Your task to perform on an android device: Search for "bose quietcomfort 35" on bestbuy, select the first entry, add it to the cart, then select checkout. Image 0: 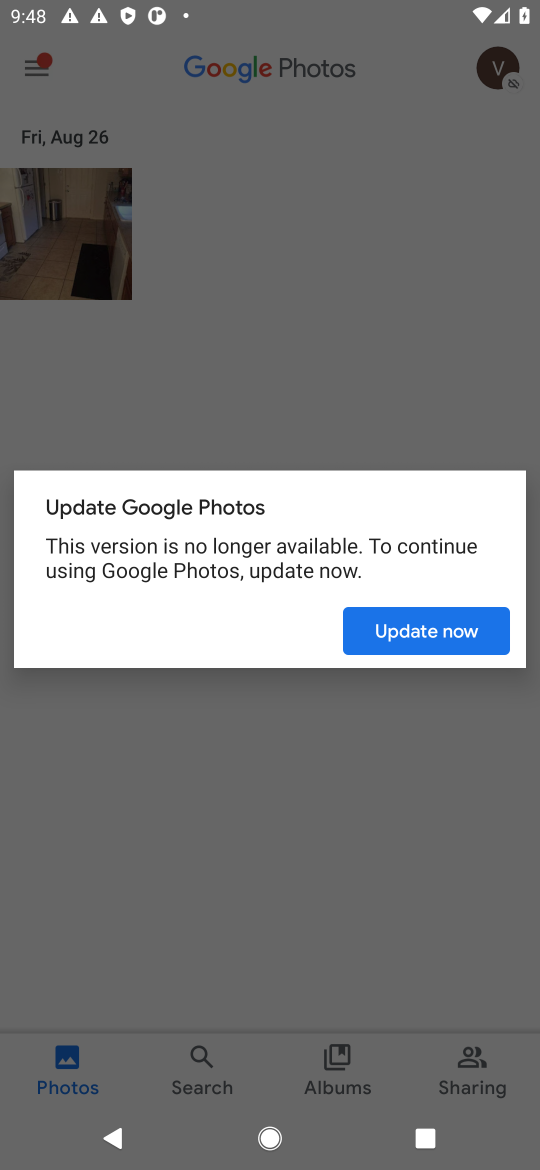
Step 0: press home button
Your task to perform on an android device: Search for "bose quietcomfort 35" on bestbuy, select the first entry, add it to the cart, then select checkout. Image 1: 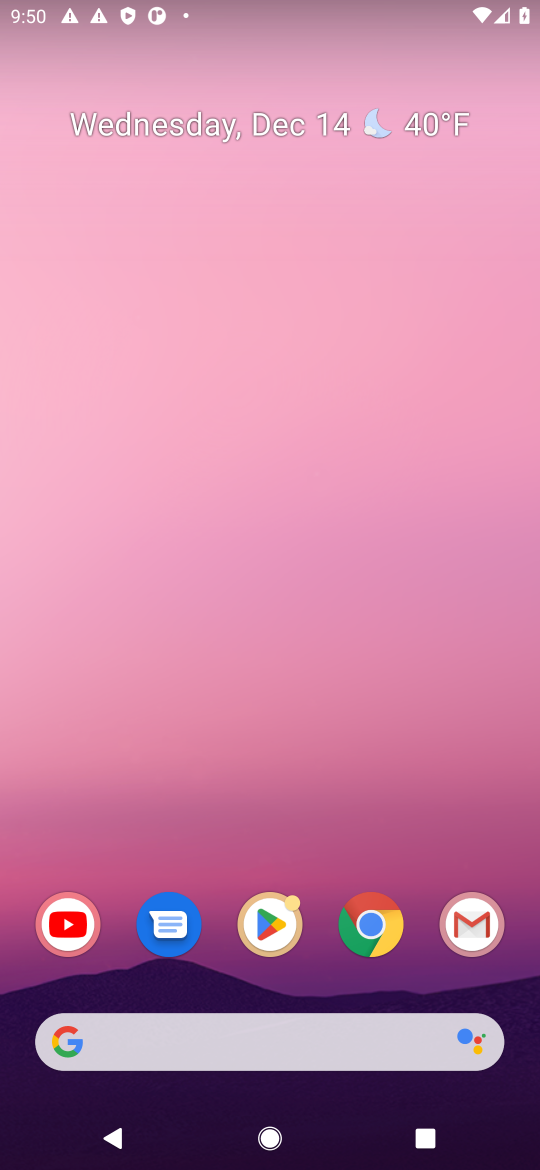
Step 1: click (382, 923)
Your task to perform on an android device: Search for "bose quietcomfort 35" on bestbuy, select the first entry, add it to the cart, then select checkout. Image 2: 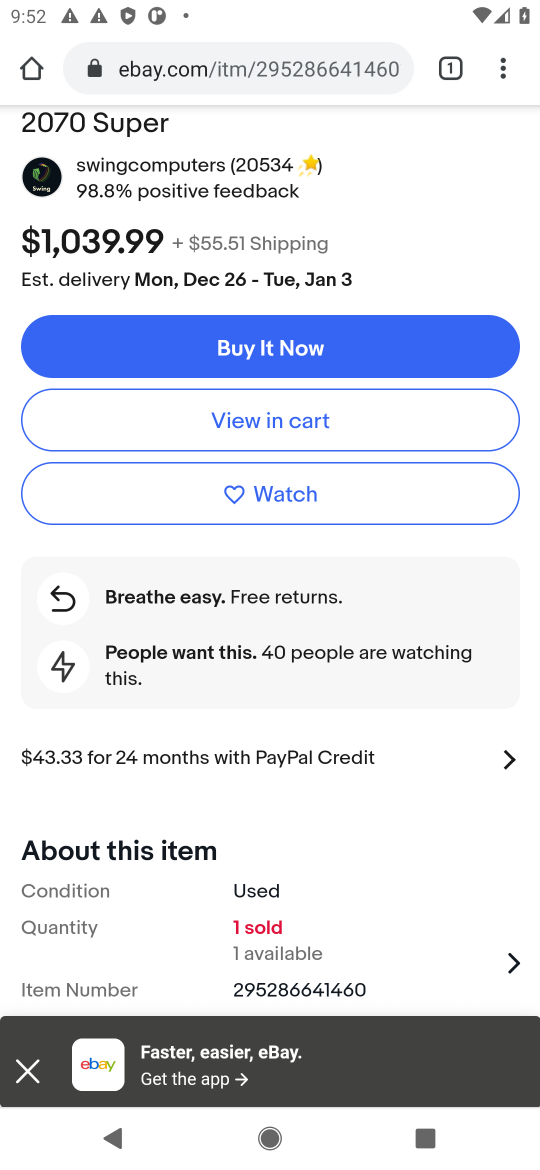
Step 2: click (301, 79)
Your task to perform on an android device: Search for "bose quietcomfort 35" on bestbuy, select the first entry, add it to the cart, then select checkout. Image 3: 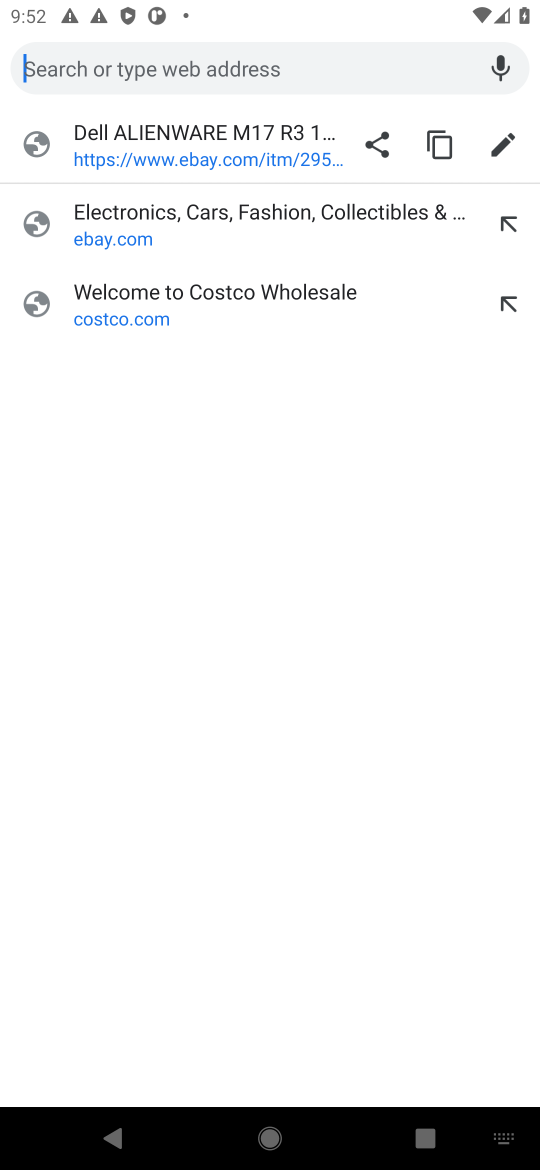
Step 3: type "BESTBUY"
Your task to perform on an android device: Search for "bose quietcomfort 35" on bestbuy, select the first entry, add it to the cart, then select checkout. Image 4: 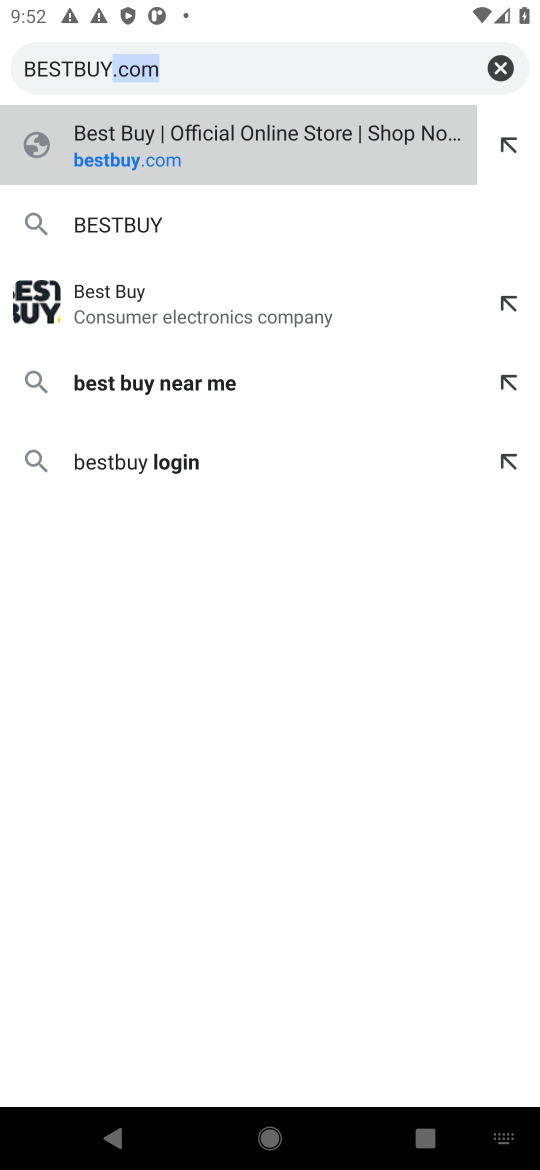
Step 4: click (132, 154)
Your task to perform on an android device: Search for "bose quietcomfort 35" on bestbuy, select the first entry, add it to the cart, then select checkout. Image 5: 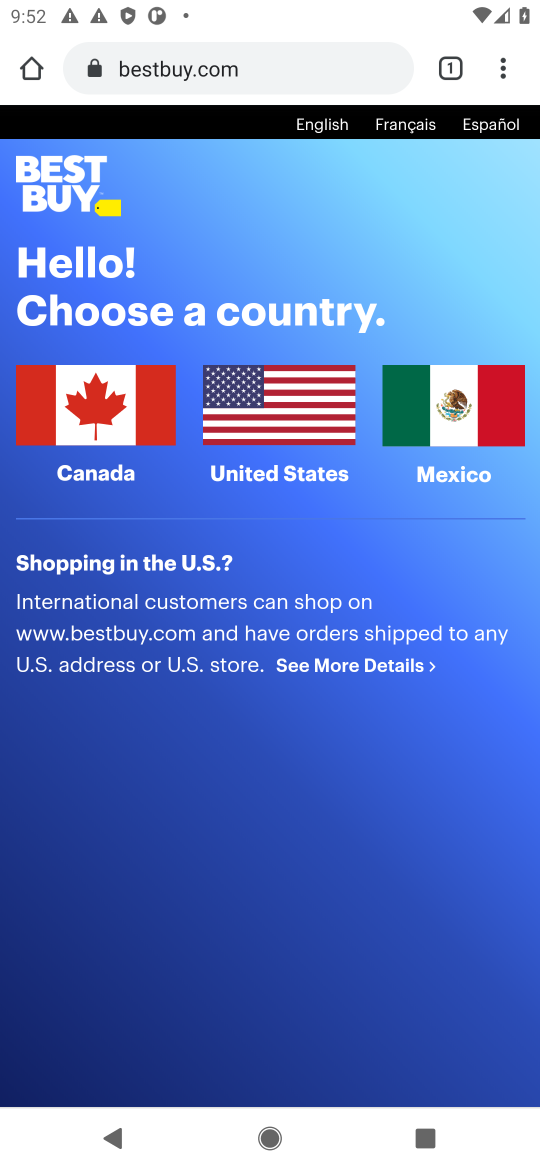
Step 5: click (281, 403)
Your task to perform on an android device: Search for "bose quietcomfort 35" on bestbuy, select the first entry, add it to the cart, then select checkout. Image 6: 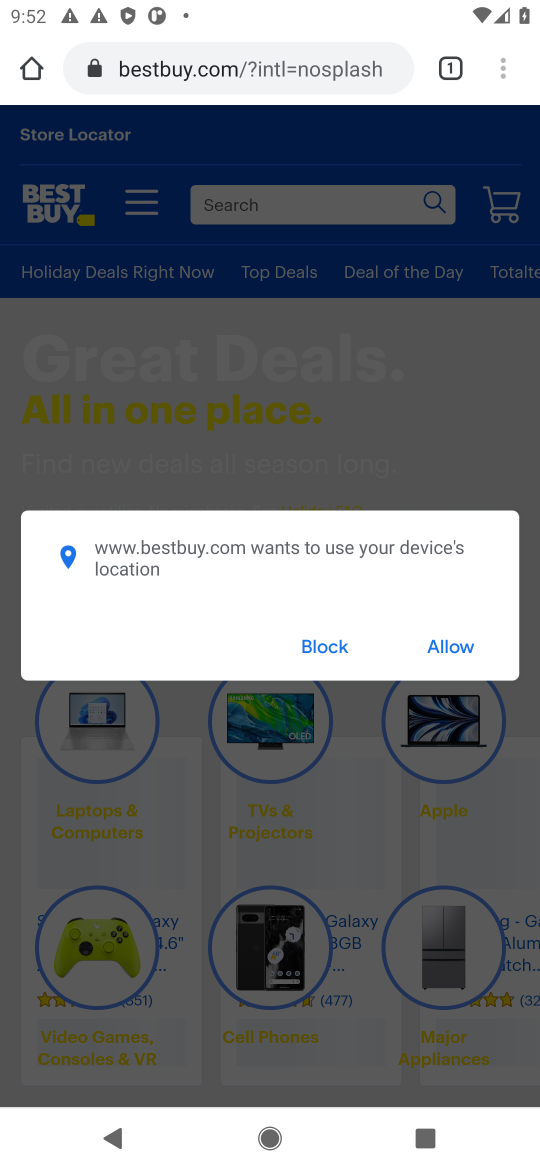
Step 6: click (314, 650)
Your task to perform on an android device: Search for "bose quietcomfort 35" on bestbuy, select the first entry, add it to the cart, then select checkout. Image 7: 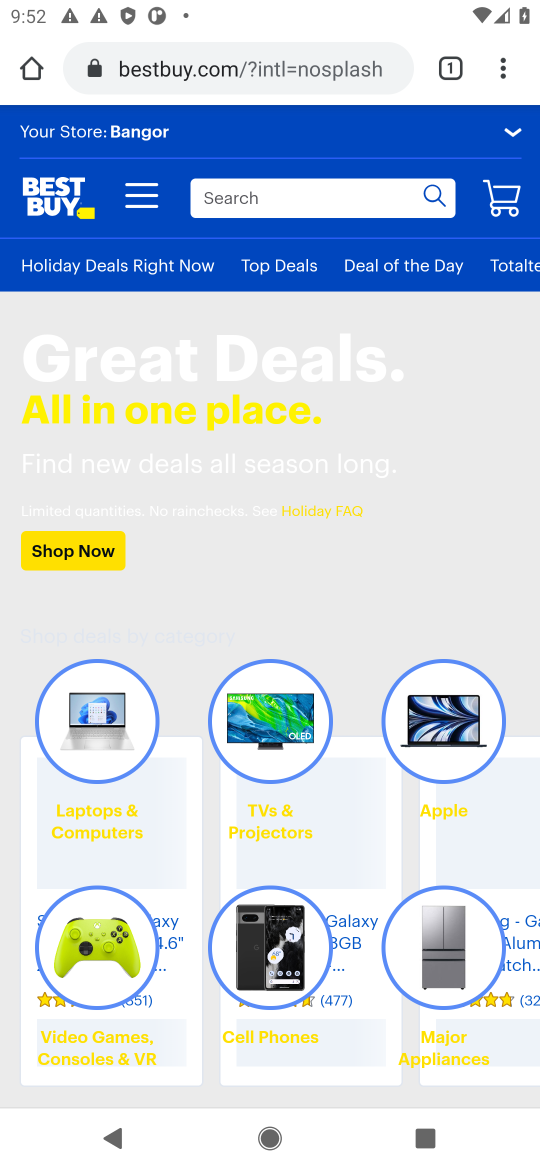
Step 7: click (283, 210)
Your task to perform on an android device: Search for "bose quietcomfort 35" on bestbuy, select the first entry, add it to the cart, then select checkout. Image 8: 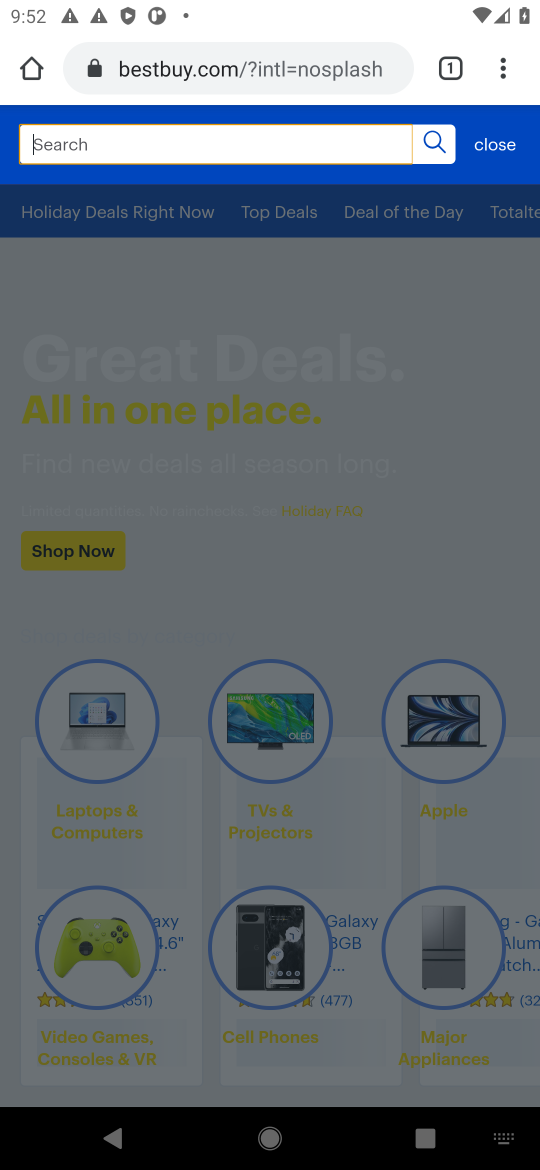
Step 8: type "bose quietcomfort 35"
Your task to perform on an android device: Search for "bose quietcomfort 35" on bestbuy, select the first entry, add it to the cart, then select checkout. Image 9: 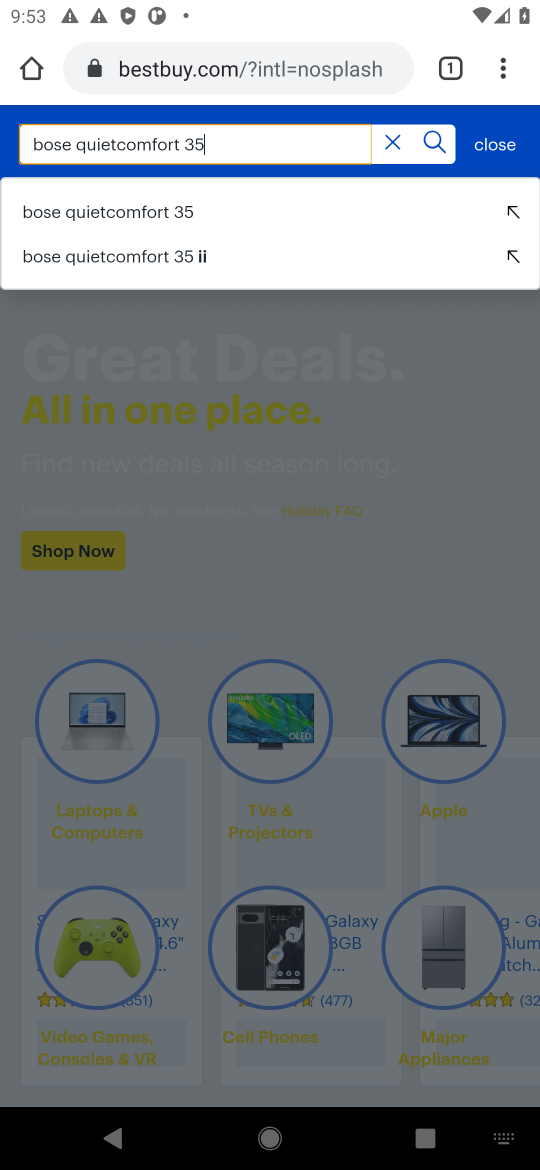
Step 9: click (207, 216)
Your task to perform on an android device: Search for "bose quietcomfort 35" on bestbuy, select the first entry, add it to the cart, then select checkout. Image 10: 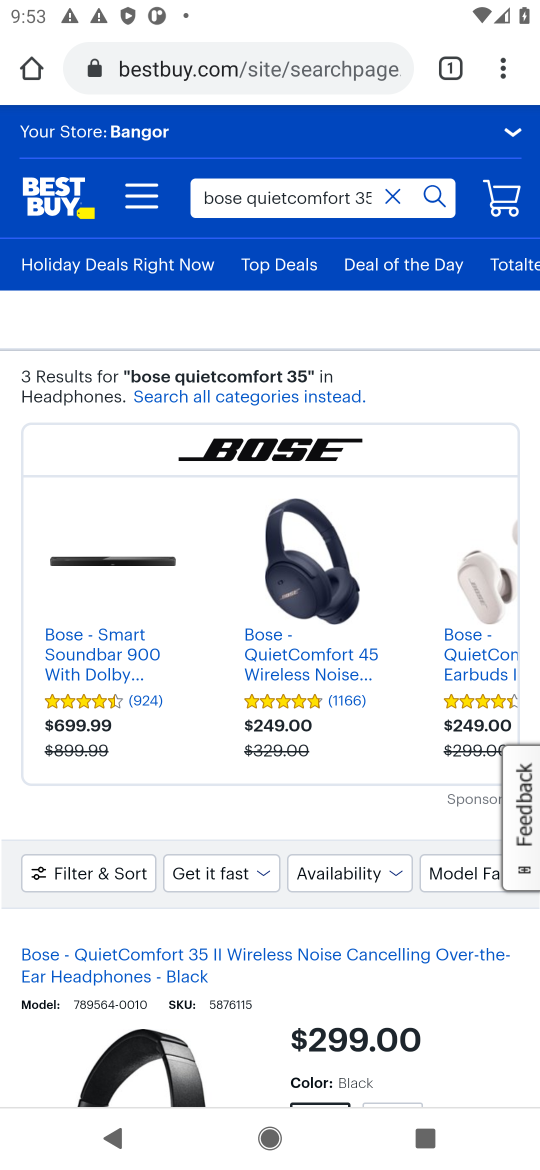
Step 10: task complete